Your task to perform on an android device: find snoozed emails in the gmail app Image 0: 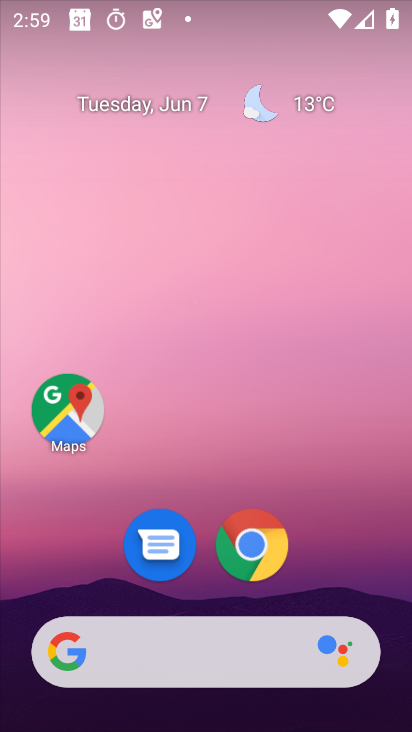
Step 0: drag from (309, 410) to (218, 26)
Your task to perform on an android device: find snoozed emails in the gmail app Image 1: 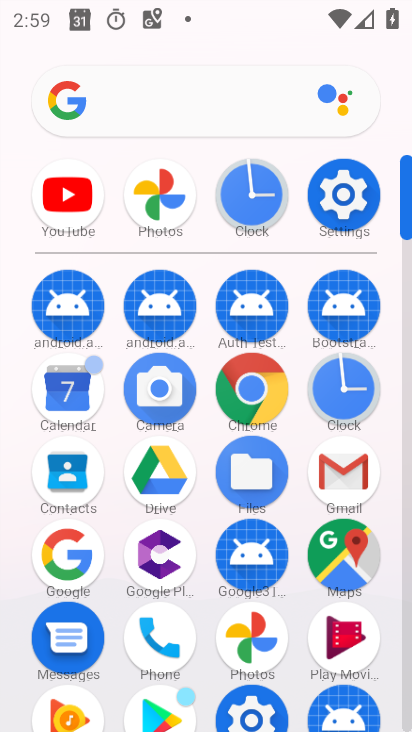
Step 1: click (345, 467)
Your task to perform on an android device: find snoozed emails in the gmail app Image 2: 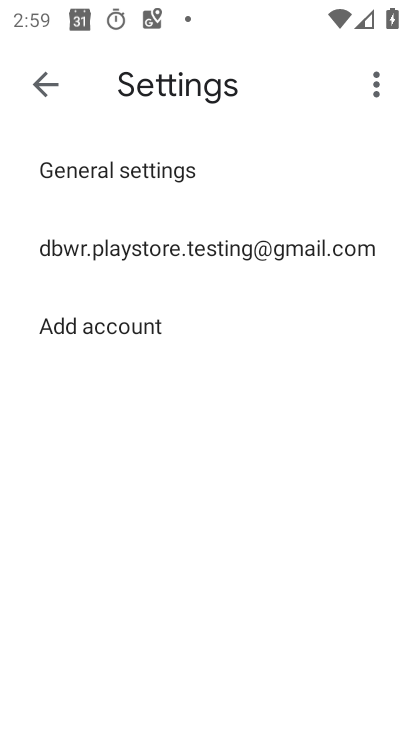
Step 2: click (47, 95)
Your task to perform on an android device: find snoozed emails in the gmail app Image 3: 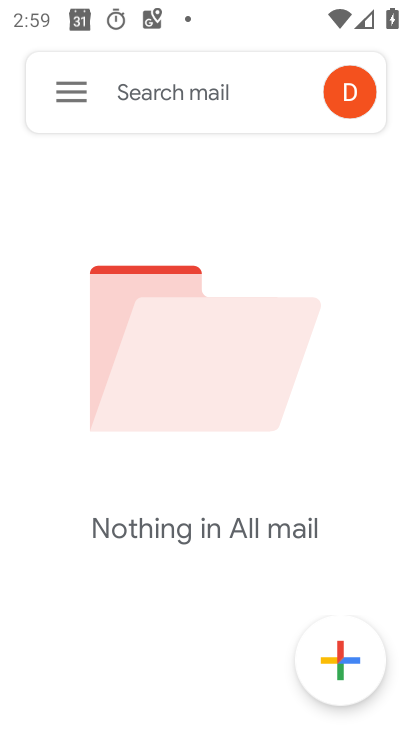
Step 3: click (72, 70)
Your task to perform on an android device: find snoozed emails in the gmail app Image 4: 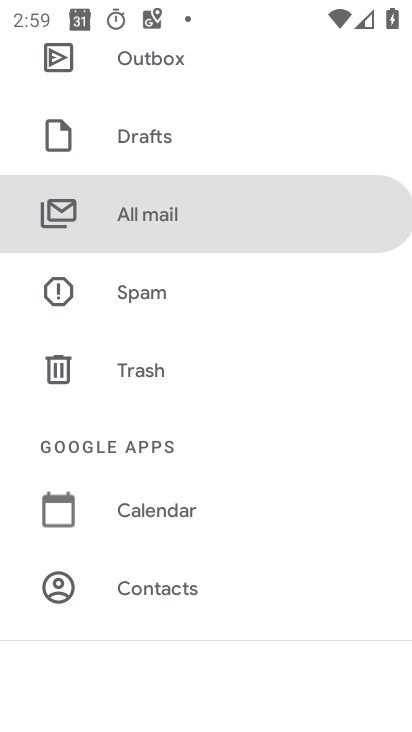
Step 4: drag from (197, 266) to (211, 729)
Your task to perform on an android device: find snoozed emails in the gmail app Image 5: 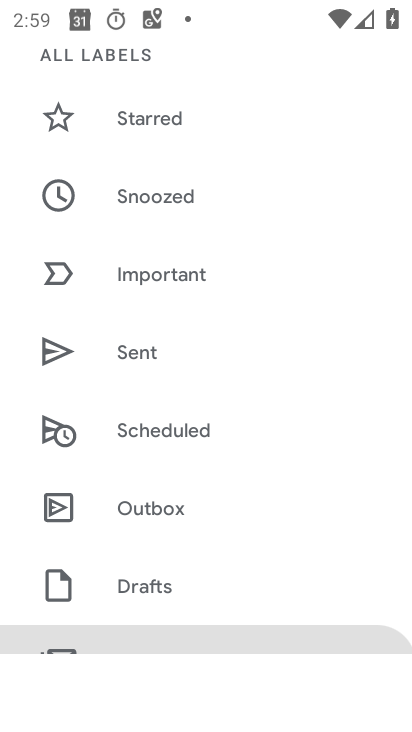
Step 5: click (179, 190)
Your task to perform on an android device: find snoozed emails in the gmail app Image 6: 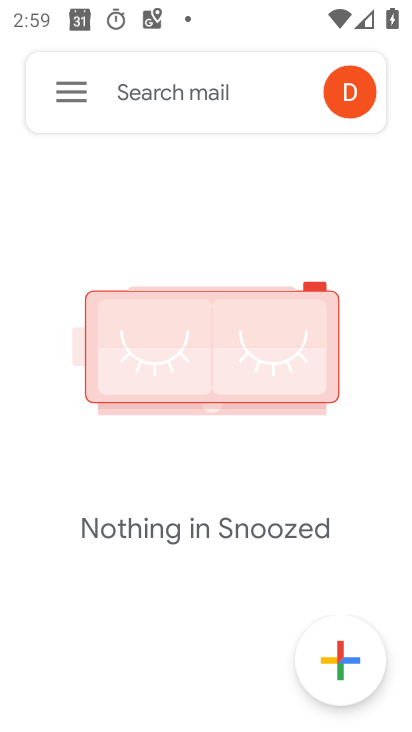
Step 6: task complete